Your task to perform on an android device: Go to display settings Image 0: 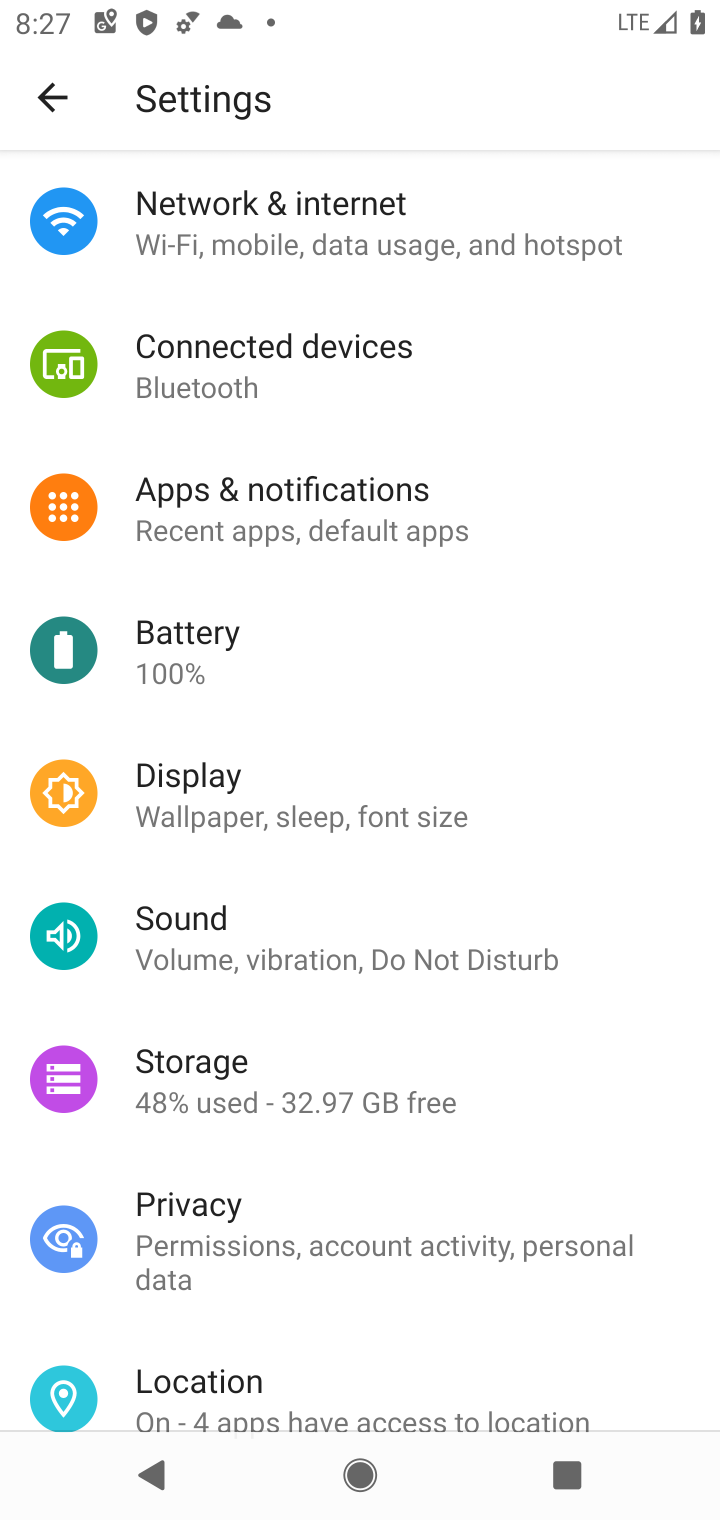
Step 0: click (196, 806)
Your task to perform on an android device: Go to display settings Image 1: 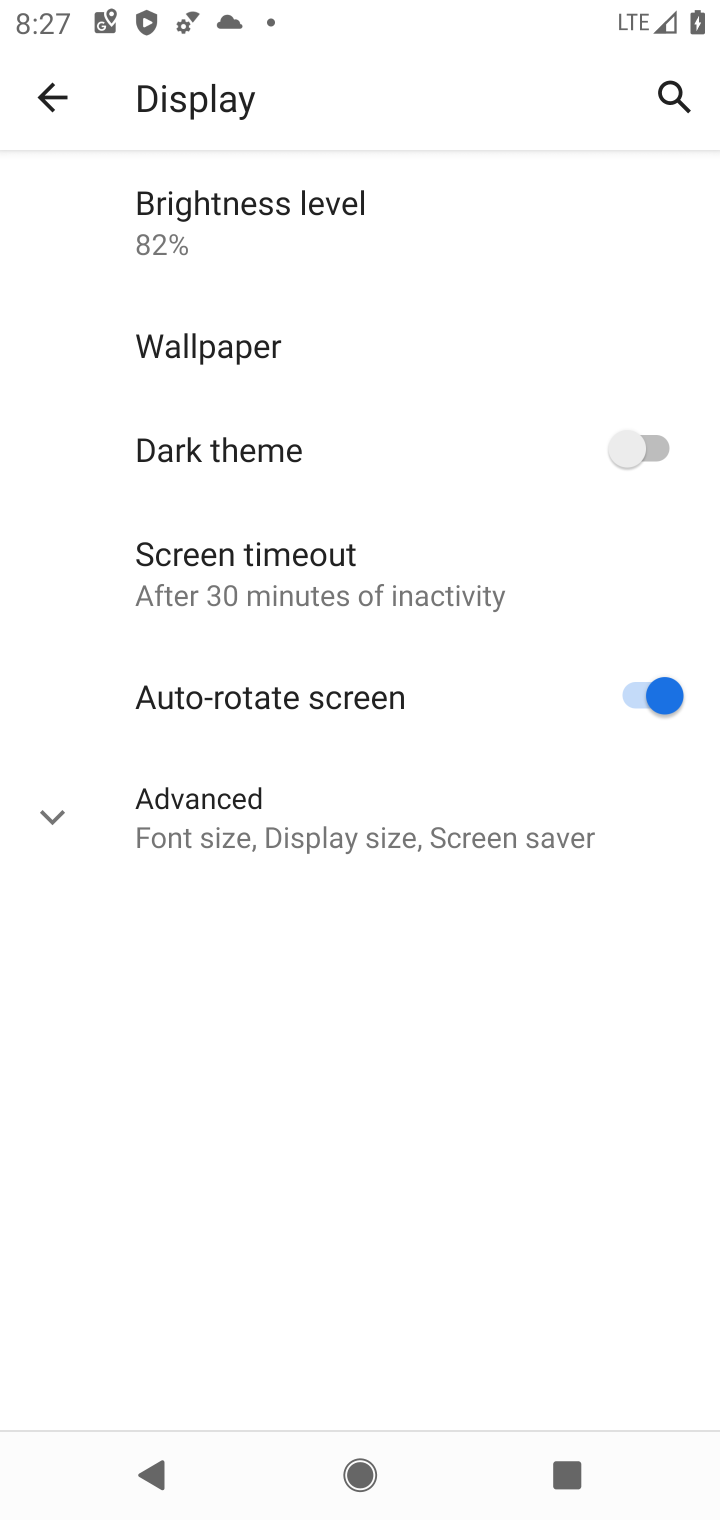
Step 1: click (53, 807)
Your task to perform on an android device: Go to display settings Image 2: 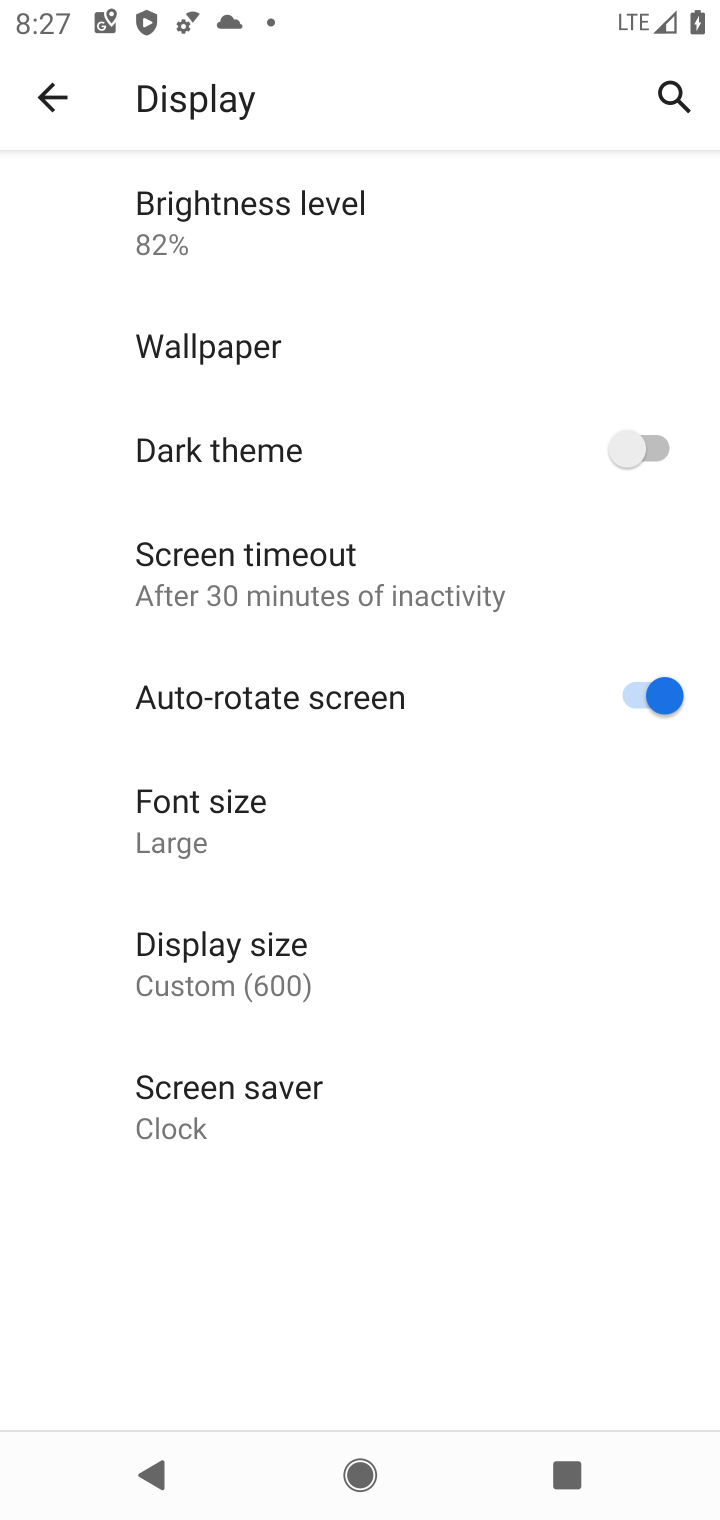
Step 2: task complete